Your task to perform on an android device: Open CNN.com Image 0: 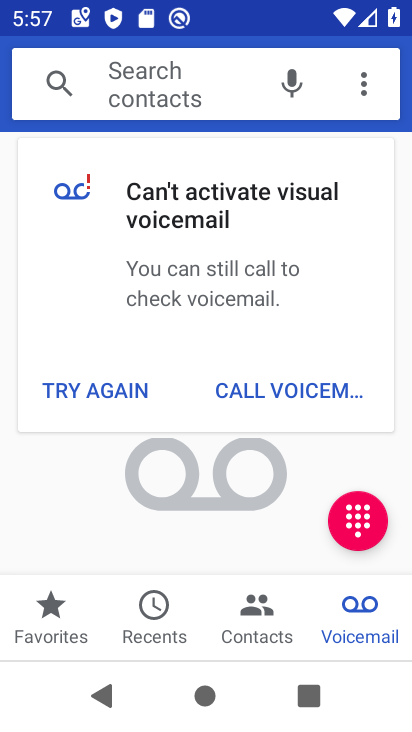
Step 0: press home button
Your task to perform on an android device: Open CNN.com Image 1: 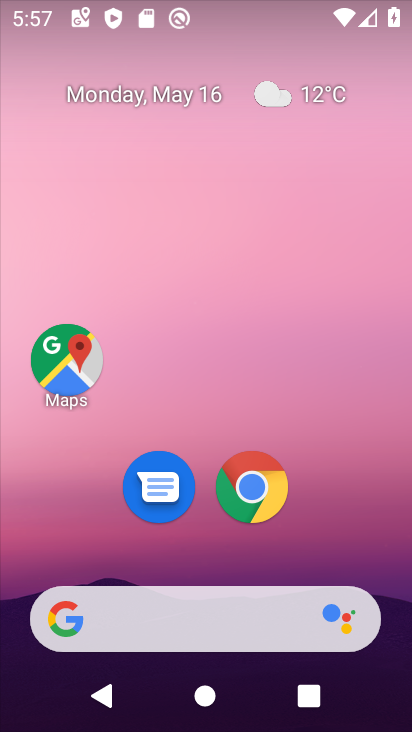
Step 1: click (257, 486)
Your task to perform on an android device: Open CNN.com Image 2: 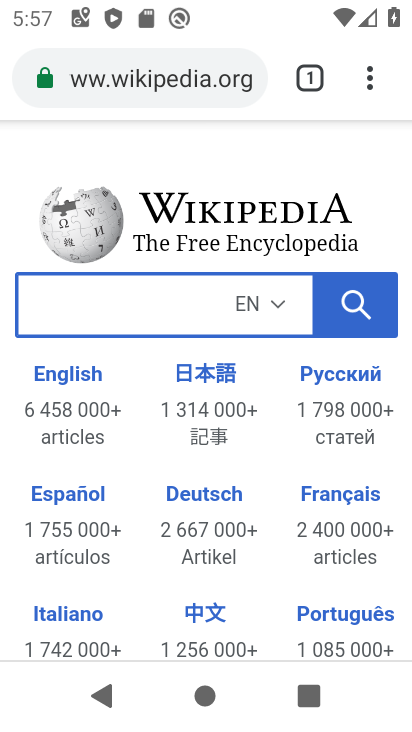
Step 2: click (176, 72)
Your task to perform on an android device: Open CNN.com Image 3: 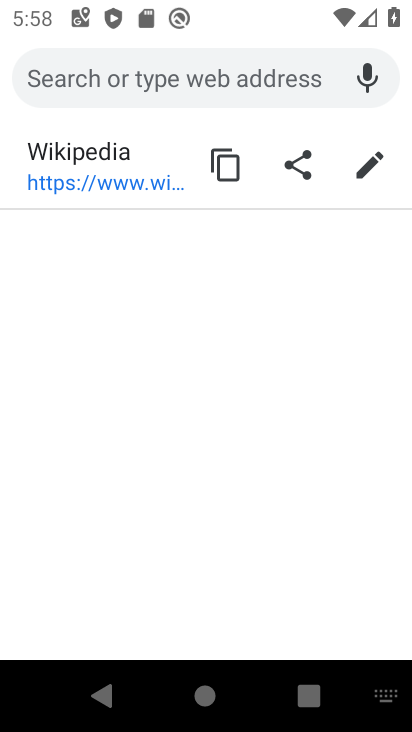
Step 3: type "cnn.com"
Your task to perform on an android device: Open CNN.com Image 4: 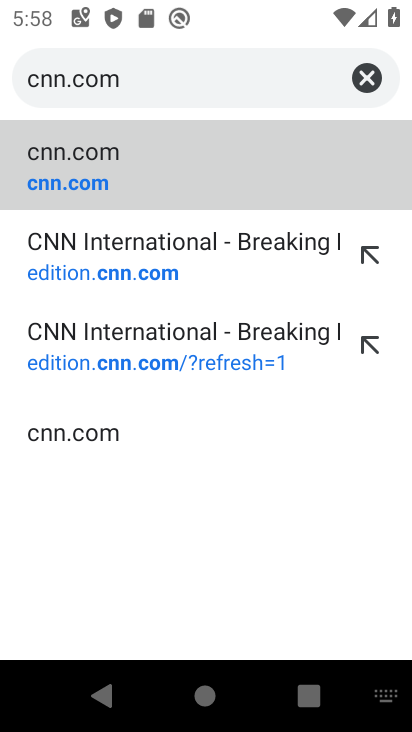
Step 4: click (59, 185)
Your task to perform on an android device: Open CNN.com Image 5: 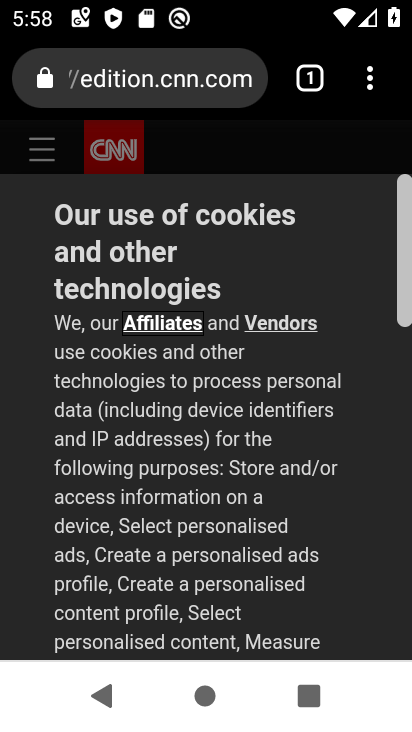
Step 5: task complete